Your task to perform on an android device: move a message to another label in the gmail app Image 0: 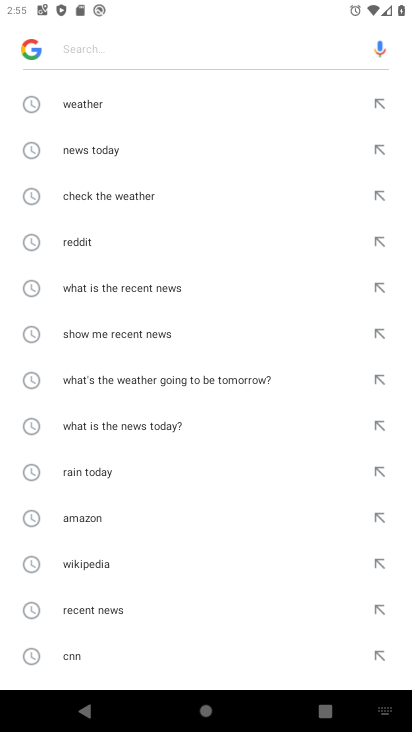
Step 0: press home button
Your task to perform on an android device: move a message to another label in the gmail app Image 1: 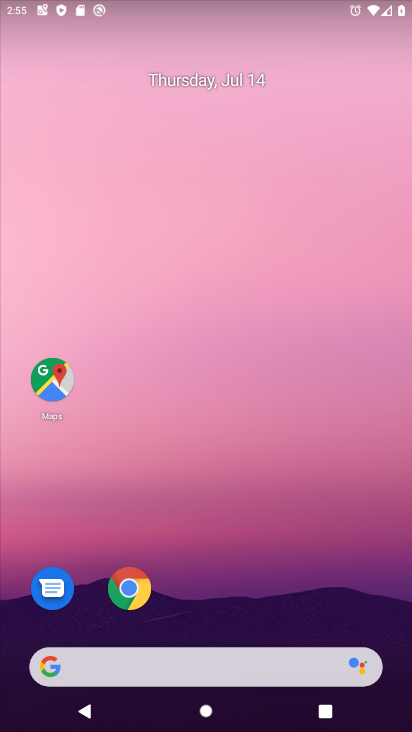
Step 1: drag from (187, 610) to (201, 249)
Your task to perform on an android device: move a message to another label in the gmail app Image 2: 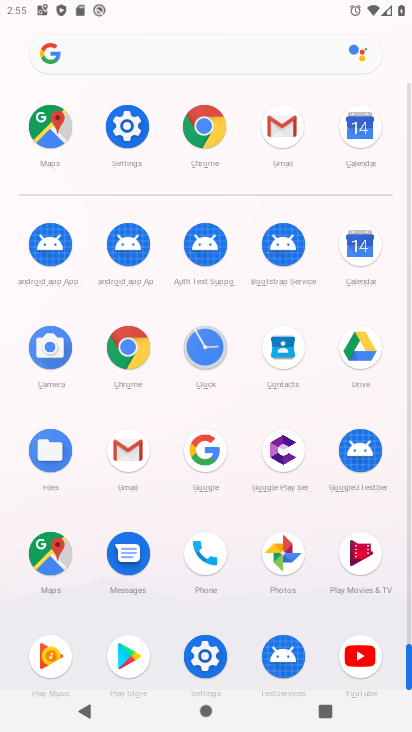
Step 2: click (128, 345)
Your task to perform on an android device: move a message to another label in the gmail app Image 3: 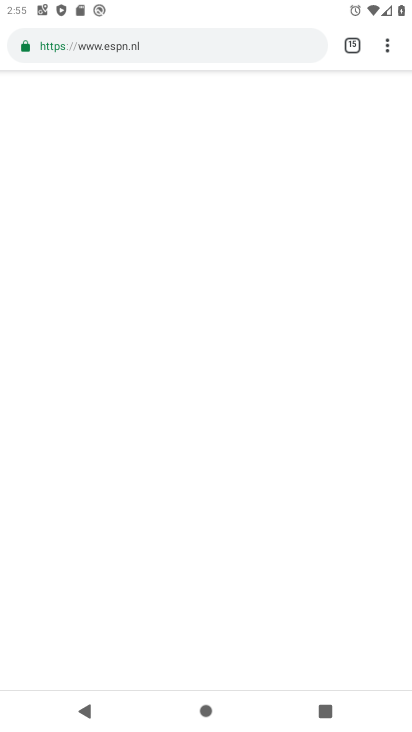
Step 3: press home button
Your task to perform on an android device: move a message to another label in the gmail app Image 4: 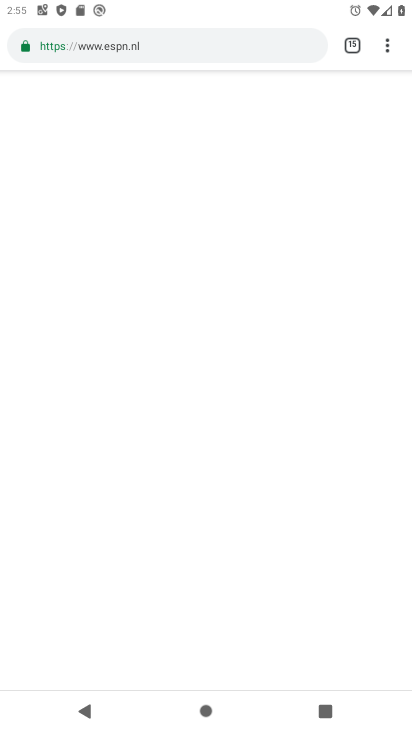
Step 4: click (266, 545)
Your task to perform on an android device: move a message to another label in the gmail app Image 5: 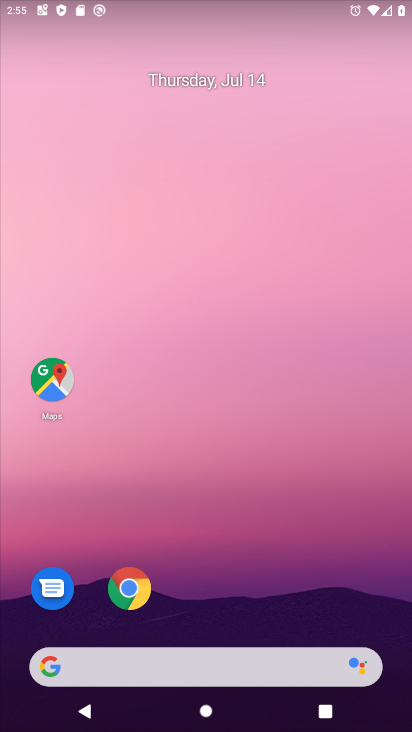
Step 5: drag from (220, 476) to (220, 213)
Your task to perform on an android device: move a message to another label in the gmail app Image 6: 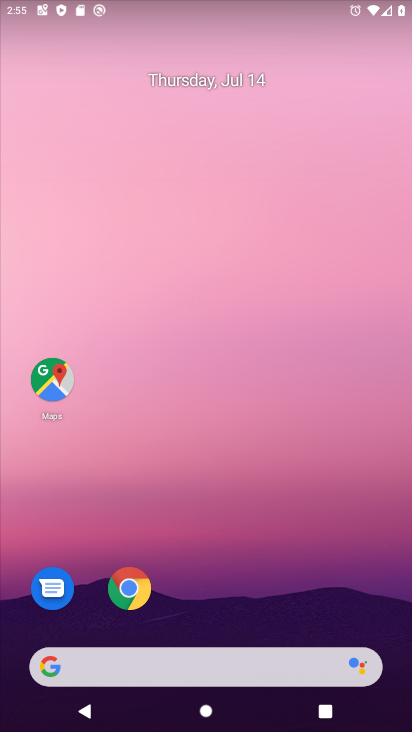
Step 6: drag from (229, 532) to (215, 170)
Your task to perform on an android device: move a message to another label in the gmail app Image 7: 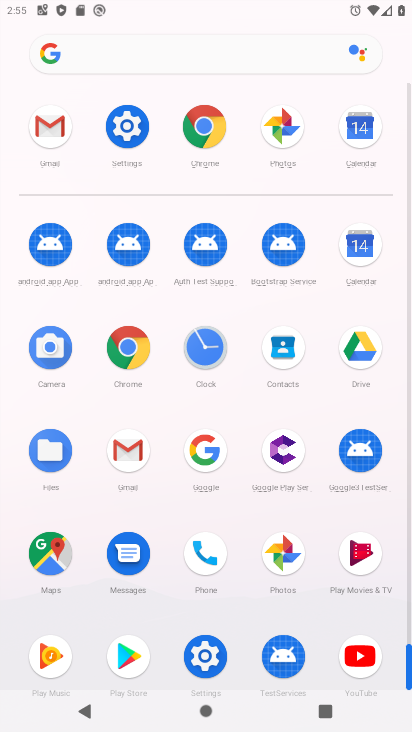
Step 7: click (131, 451)
Your task to perform on an android device: move a message to another label in the gmail app Image 8: 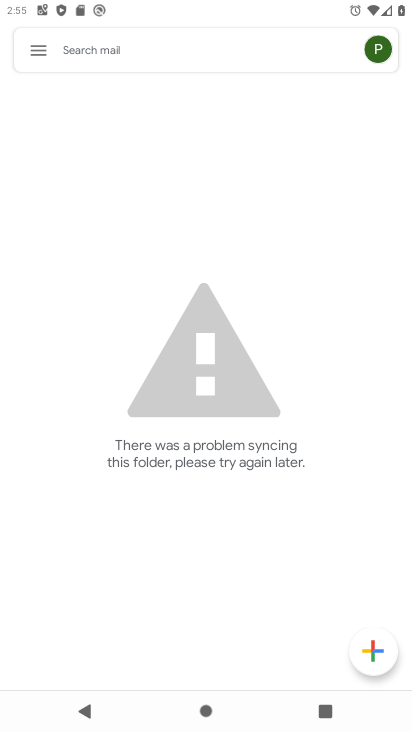
Step 8: click (36, 60)
Your task to perform on an android device: move a message to another label in the gmail app Image 9: 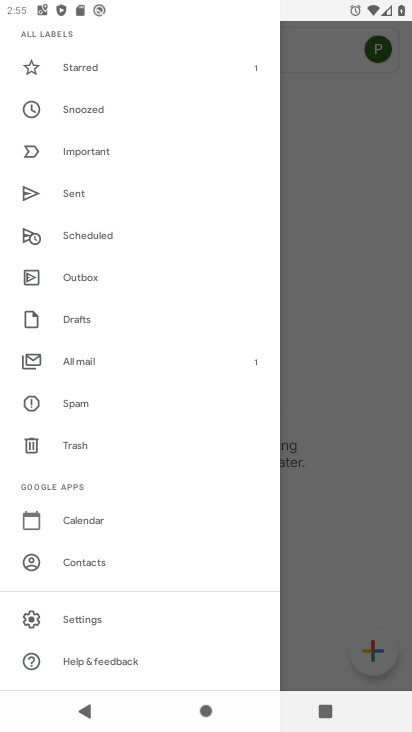
Step 9: click (105, 613)
Your task to perform on an android device: move a message to another label in the gmail app Image 10: 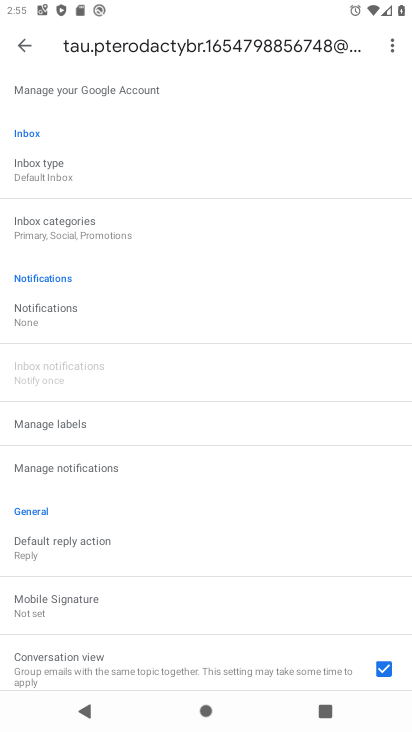
Step 10: task complete